Your task to perform on an android device: toggle notification dots Image 0: 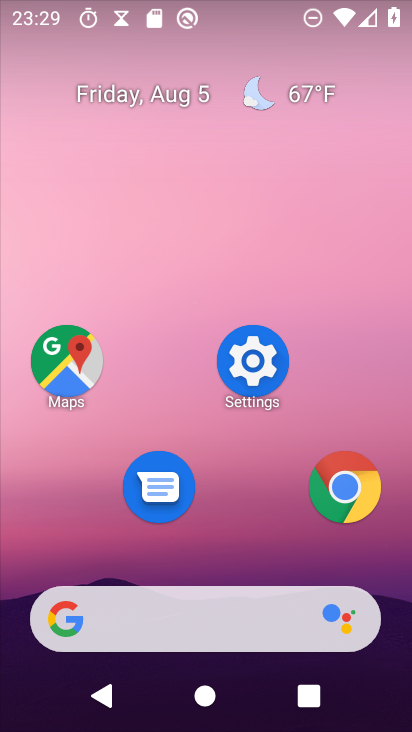
Step 0: click (257, 357)
Your task to perform on an android device: toggle notification dots Image 1: 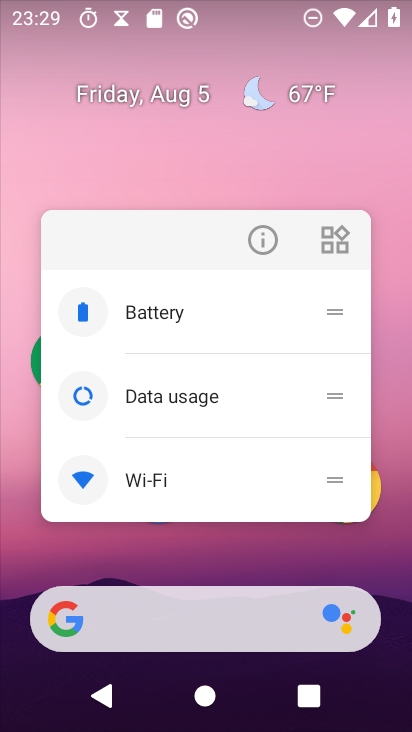
Step 1: click (317, 174)
Your task to perform on an android device: toggle notification dots Image 2: 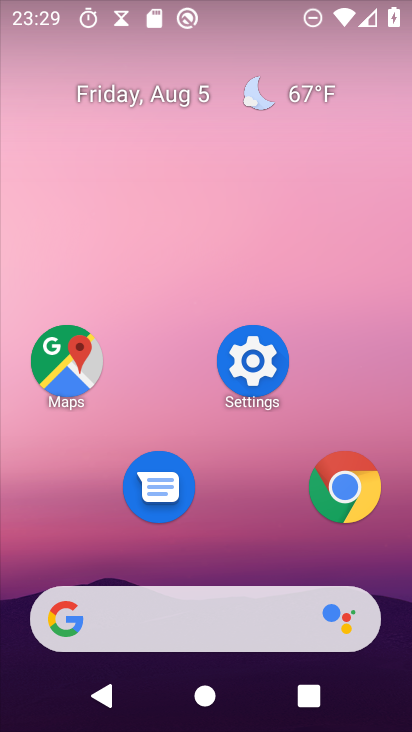
Step 2: click (262, 370)
Your task to perform on an android device: toggle notification dots Image 3: 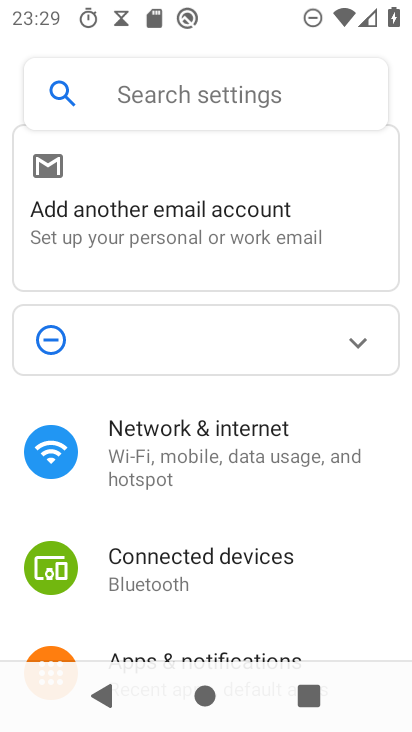
Step 3: drag from (237, 623) to (347, 277)
Your task to perform on an android device: toggle notification dots Image 4: 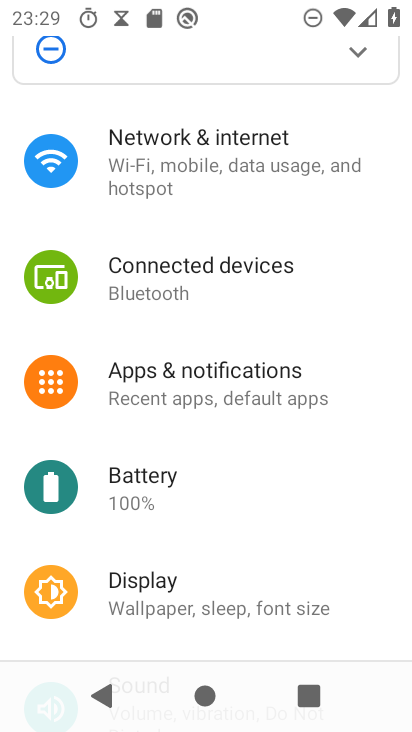
Step 4: click (245, 373)
Your task to perform on an android device: toggle notification dots Image 5: 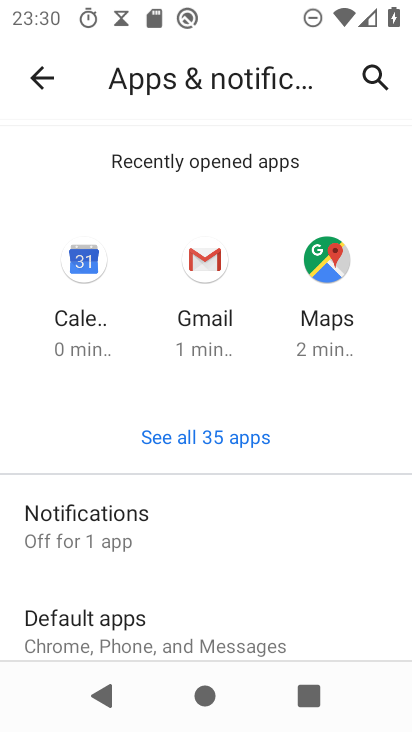
Step 5: click (124, 515)
Your task to perform on an android device: toggle notification dots Image 6: 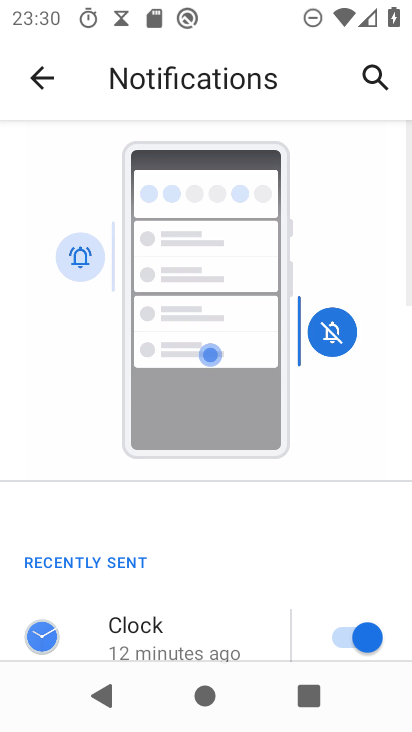
Step 6: drag from (255, 588) to (411, 128)
Your task to perform on an android device: toggle notification dots Image 7: 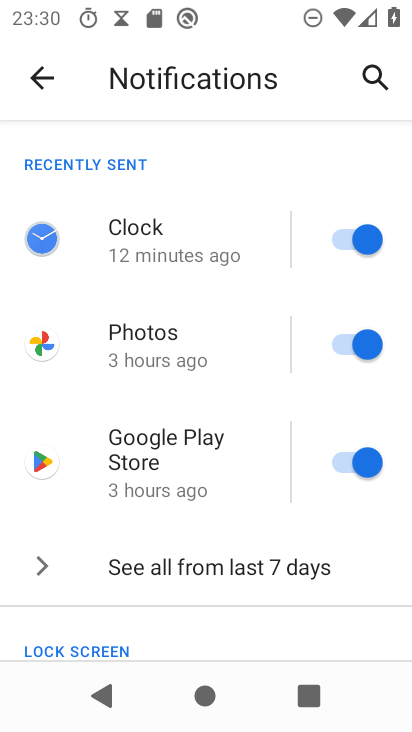
Step 7: drag from (263, 626) to (373, 187)
Your task to perform on an android device: toggle notification dots Image 8: 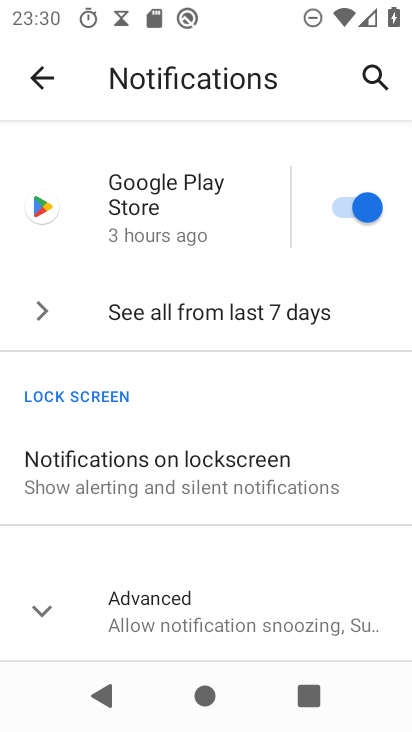
Step 8: click (166, 610)
Your task to perform on an android device: toggle notification dots Image 9: 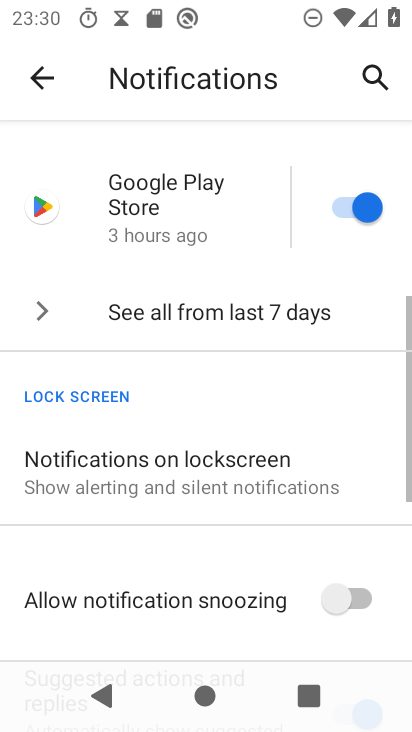
Step 9: drag from (230, 560) to (353, 26)
Your task to perform on an android device: toggle notification dots Image 10: 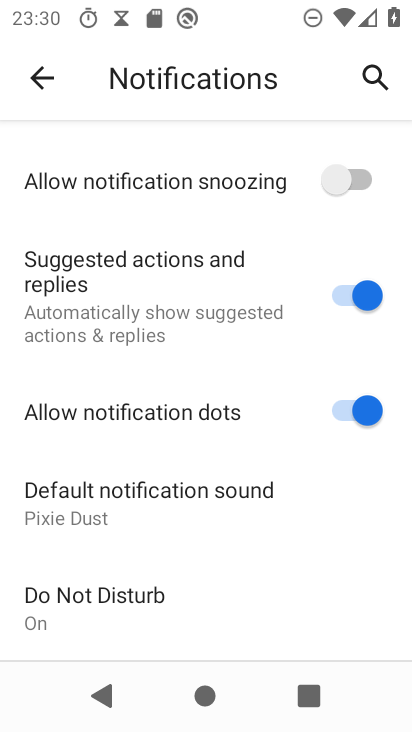
Step 10: click (346, 415)
Your task to perform on an android device: toggle notification dots Image 11: 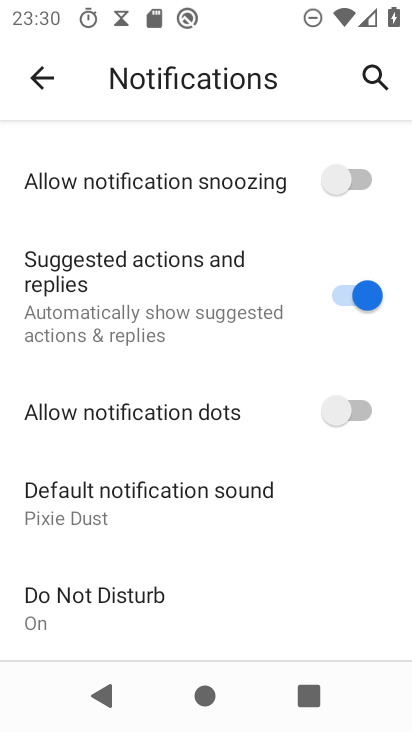
Step 11: task complete